Your task to perform on an android device: Go to Amazon Image 0: 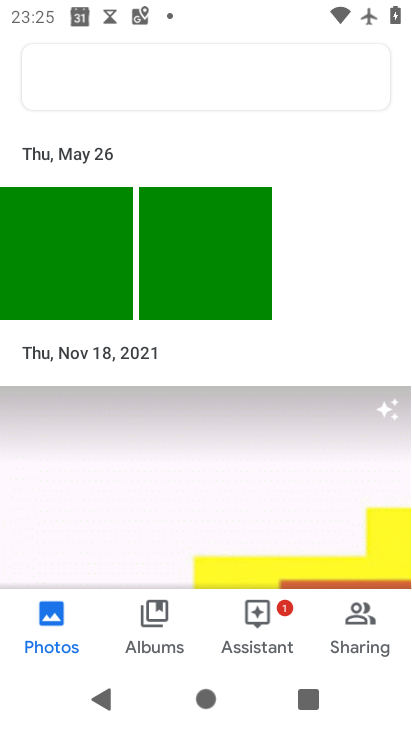
Step 0: press home button
Your task to perform on an android device: Go to Amazon Image 1: 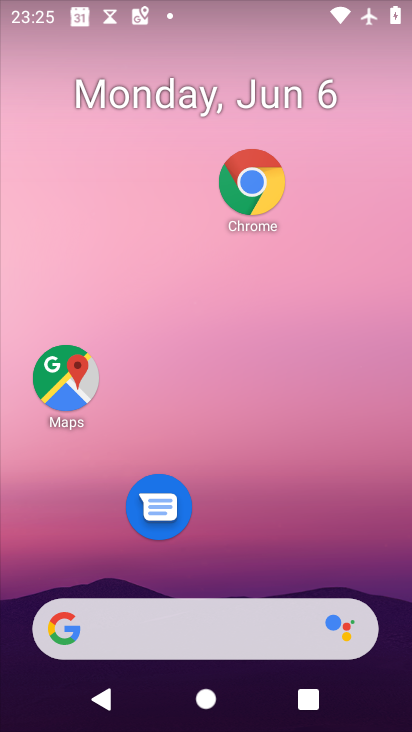
Step 1: click (242, 181)
Your task to perform on an android device: Go to Amazon Image 2: 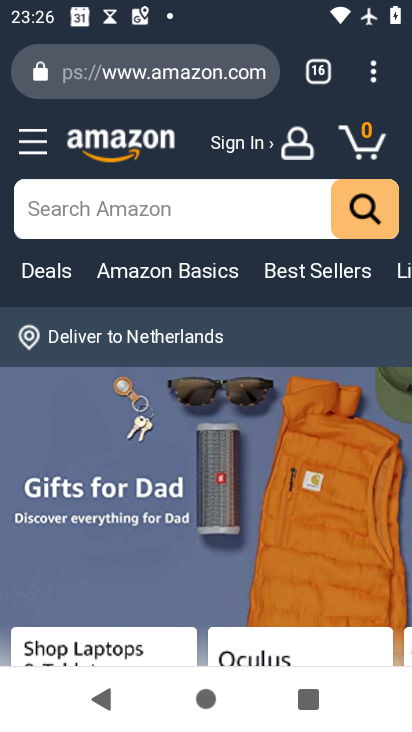
Step 2: task complete